Your task to perform on an android device: Go to display settings Image 0: 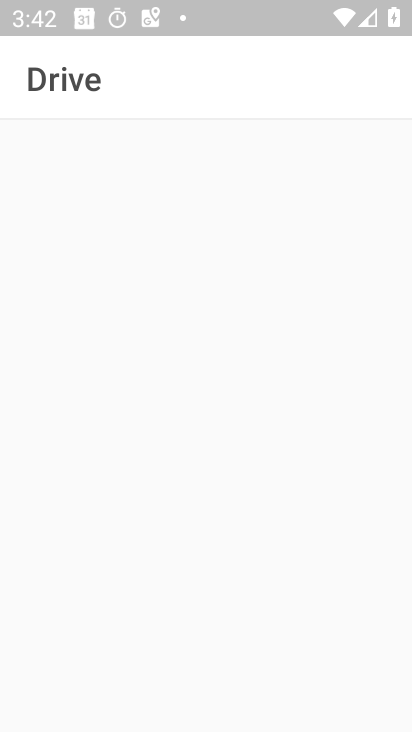
Step 0: press home button
Your task to perform on an android device: Go to display settings Image 1: 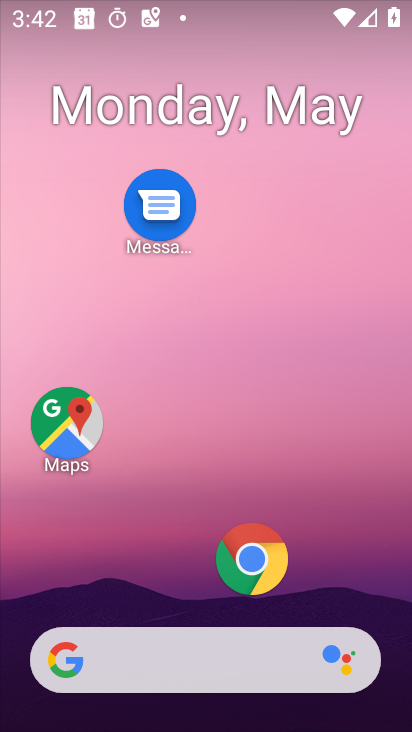
Step 1: drag from (183, 574) to (169, 196)
Your task to perform on an android device: Go to display settings Image 2: 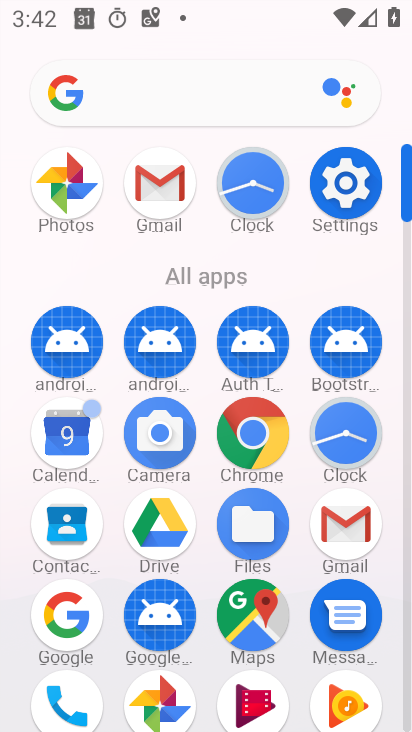
Step 2: click (352, 184)
Your task to perform on an android device: Go to display settings Image 3: 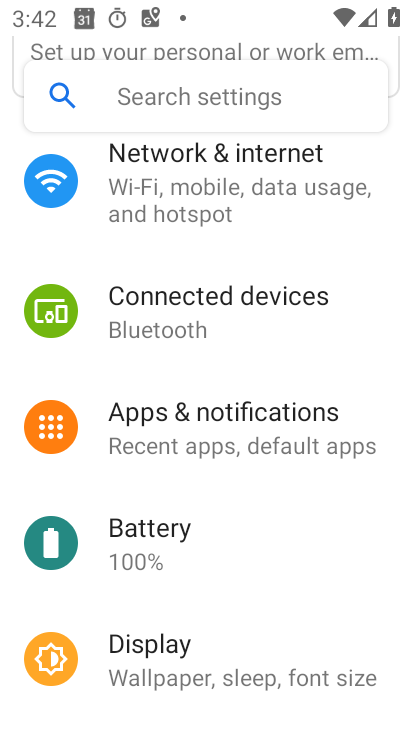
Step 3: click (197, 656)
Your task to perform on an android device: Go to display settings Image 4: 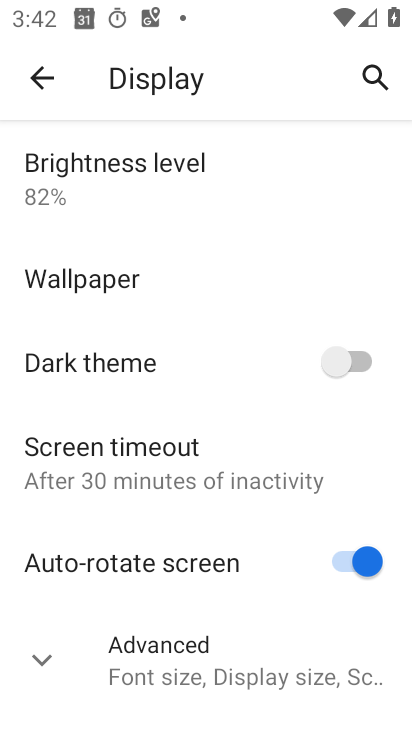
Step 4: task complete